Your task to perform on an android device: open chrome and create a bookmark for the current page Image 0: 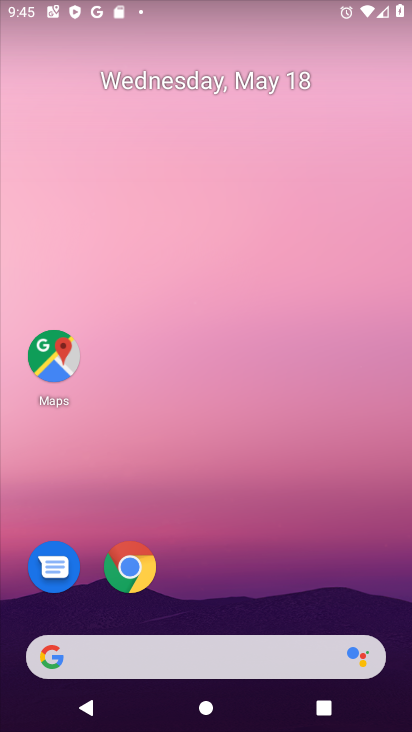
Step 0: click (135, 560)
Your task to perform on an android device: open chrome and create a bookmark for the current page Image 1: 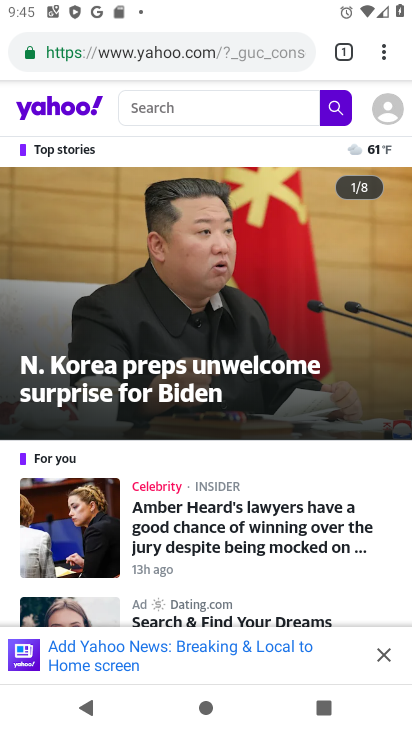
Step 1: task complete